Your task to perform on an android device: toggle airplane mode Image 0: 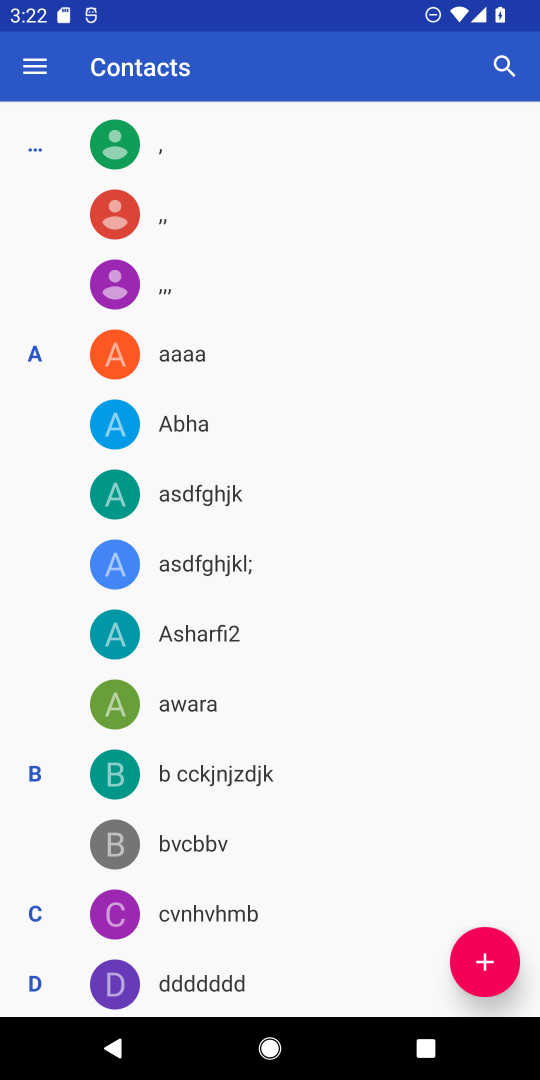
Step 0: press home button
Your task to perform on an android device: toggle airplane mode Image 1: 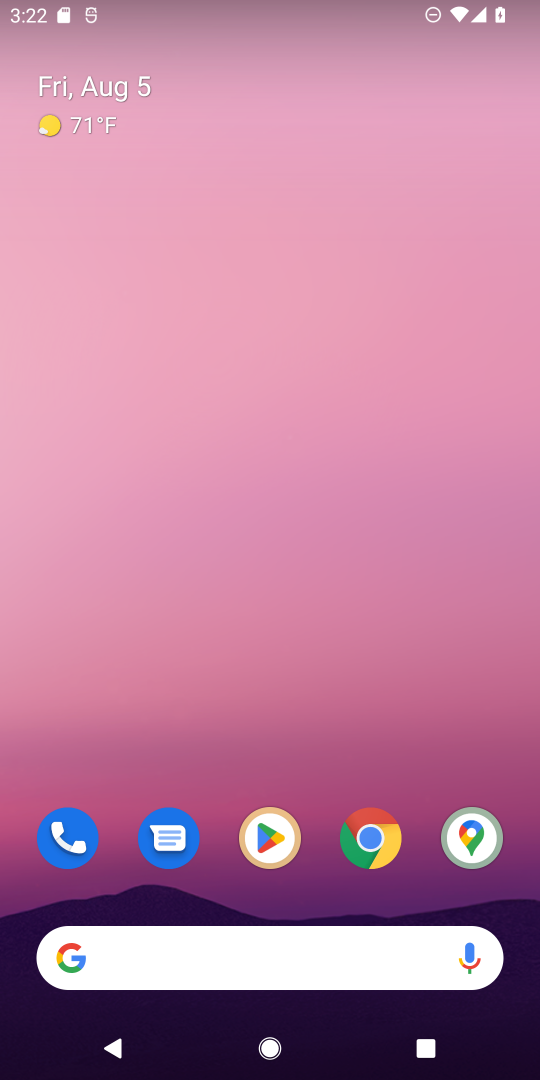
Step 1: drag from (448, 768) to (370, 215)
Your task to perform on an android device: toggle airplane mode Image 2: 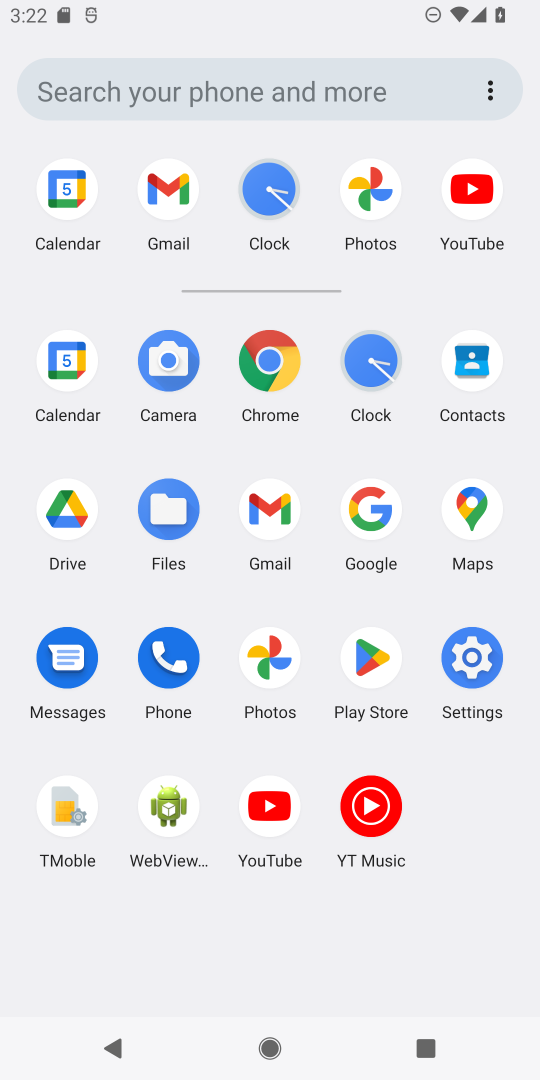
Step 2: click (465, 637)
Your task to perform on an android device: toggle airplane mode Image 3: 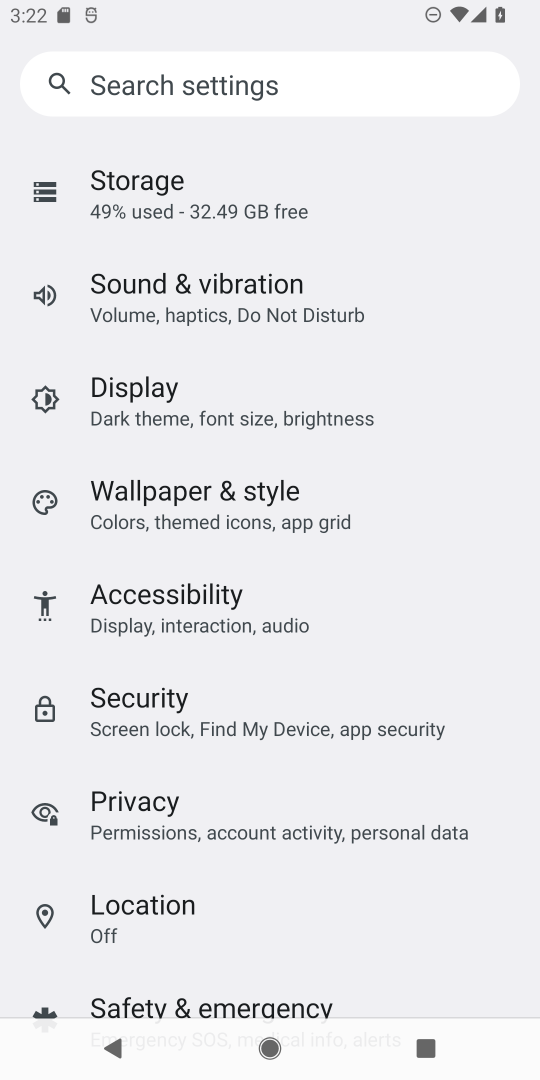
Step 3: drag from (436, 234) to (502, 1012)
Your task to perform on an android device: toggle airplane mode Image 4: 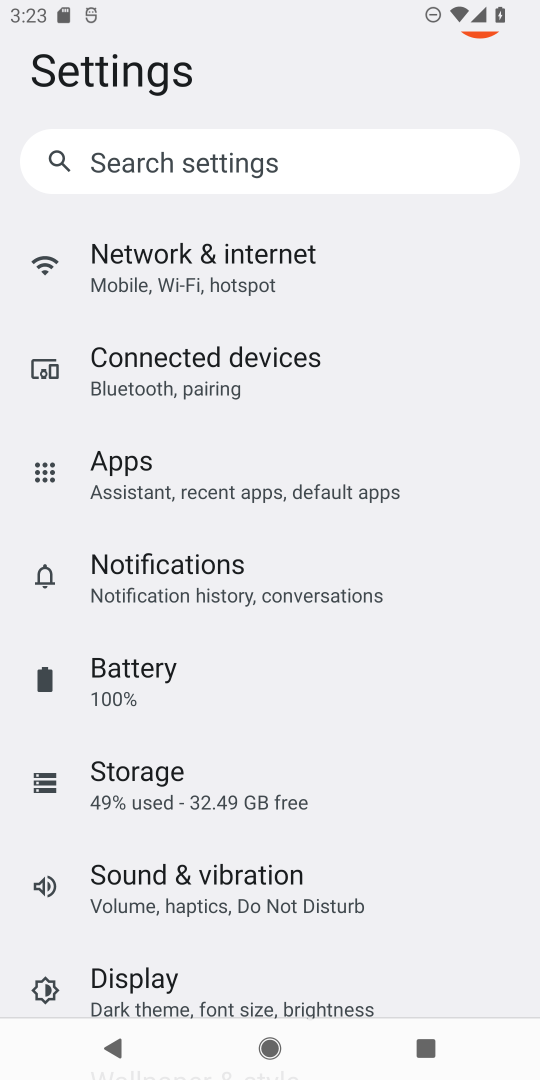
Step 4: click (339, 269)
Your task to perform on an android device: toggle airplane mode Image 5: 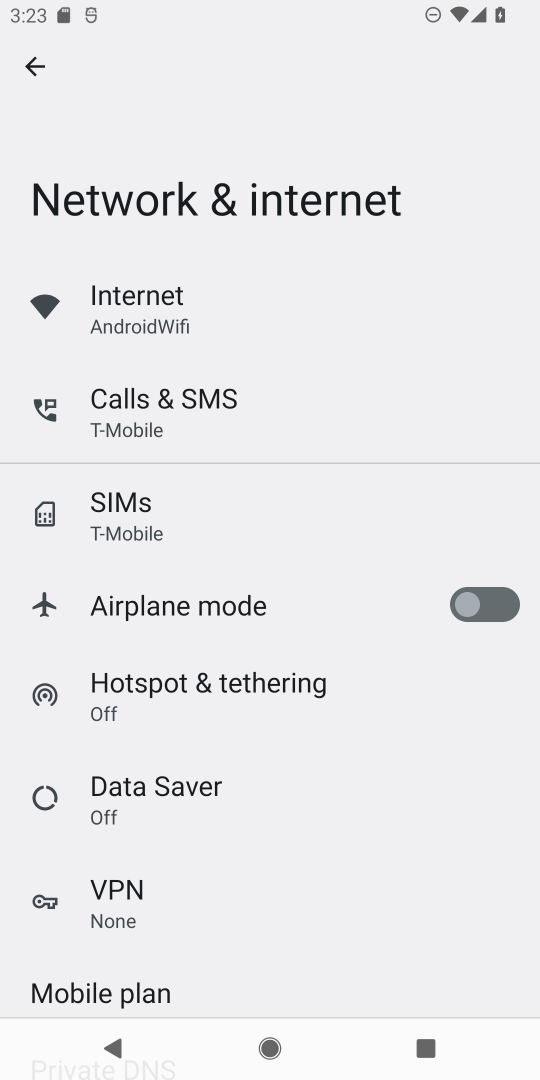
Step 5: click (471, 604)
Your task to perform on an android device: toggle airplane mode Image 6: 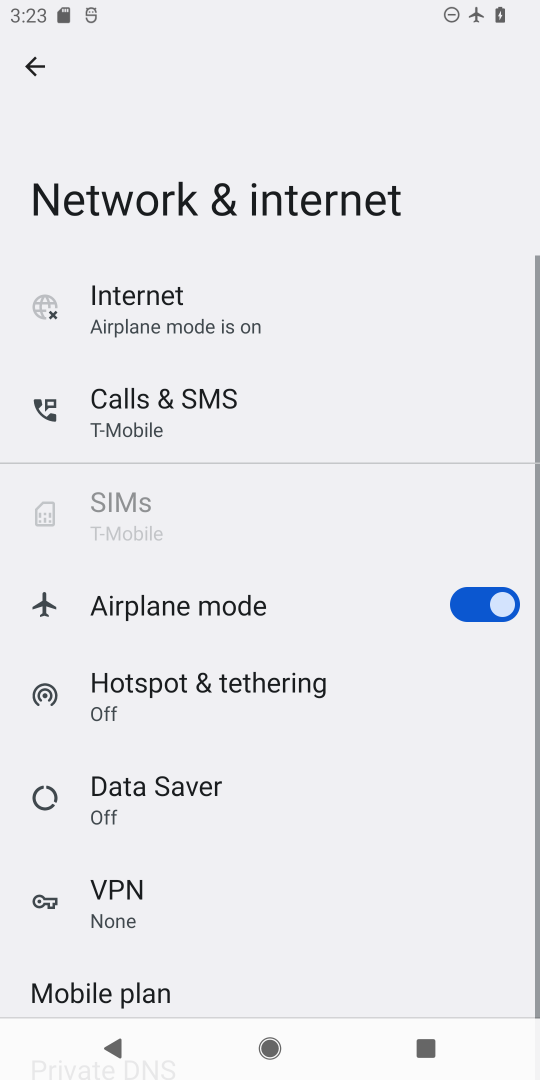
Step 6: task complete